Your task to perform on an android device: refresh tabs in the chrome app Image 0: 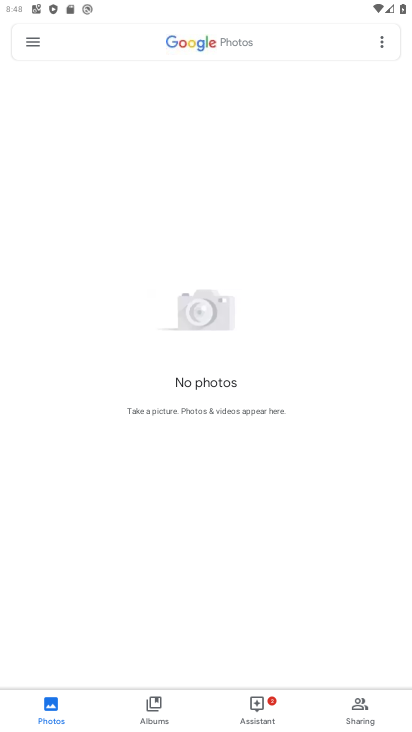
Step 0: click (194, 168)
Your task to perform on an android device: refresh tabs in the chrome app Image 1: 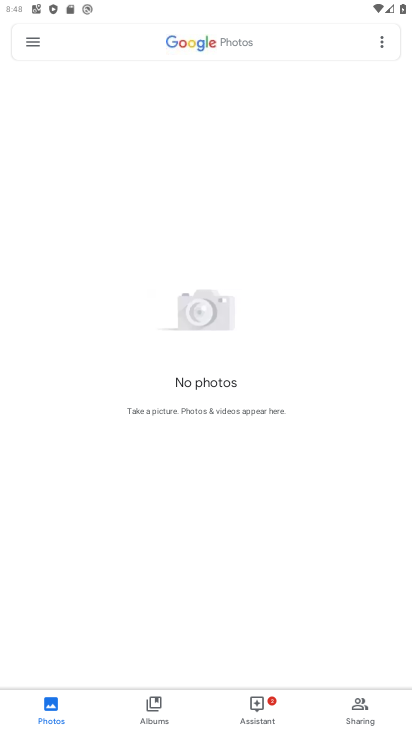
Step 1: press home button
Your task to perform on an android device: refresh tabs in the chrome app Image 2: 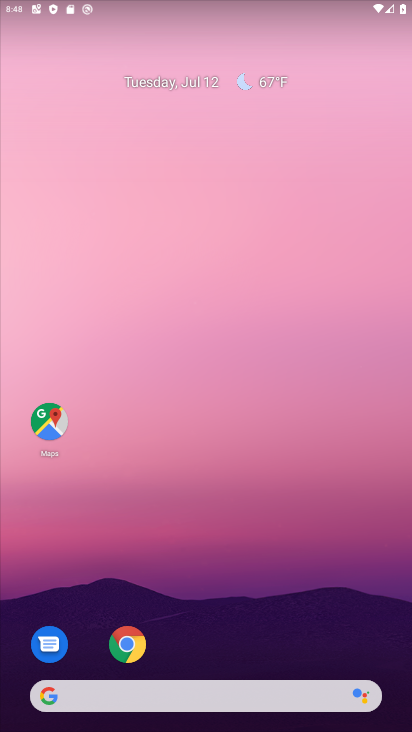
Step 2: drag from (219, 637) to (219, 151)
Your task to perform on an android device: refresh tabs in the chrome app Image 3: 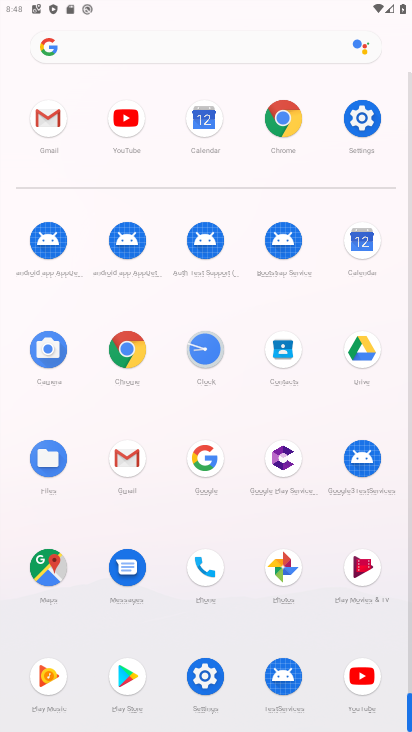
Step 3: click (129, 353)
Your task to perform on an android device: refresh tabs in the chrome app Image 4: 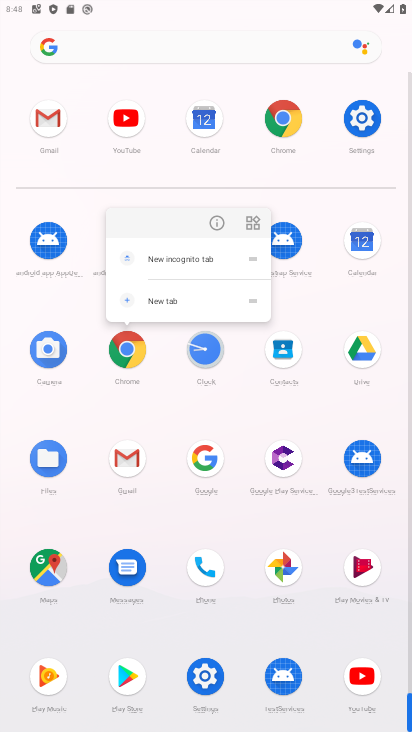
Step 4: click (217, 218)
Your task to perform on an android device: refresh tabs in the chrome app Image 5: 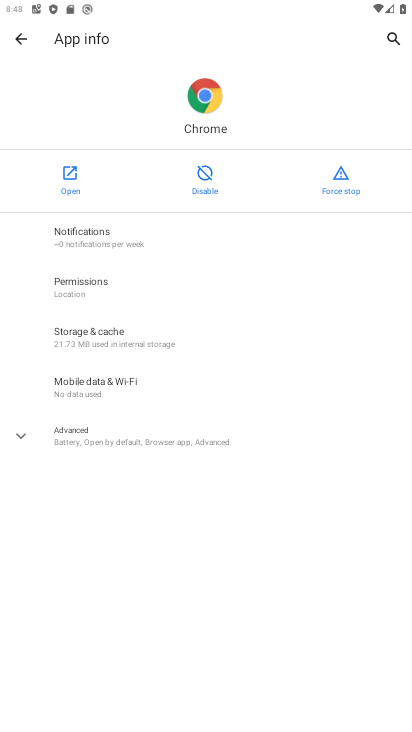
Step 5: click (62, 178)
Your task to perform on an android device: refresh tabs in the chrome app Image 6: 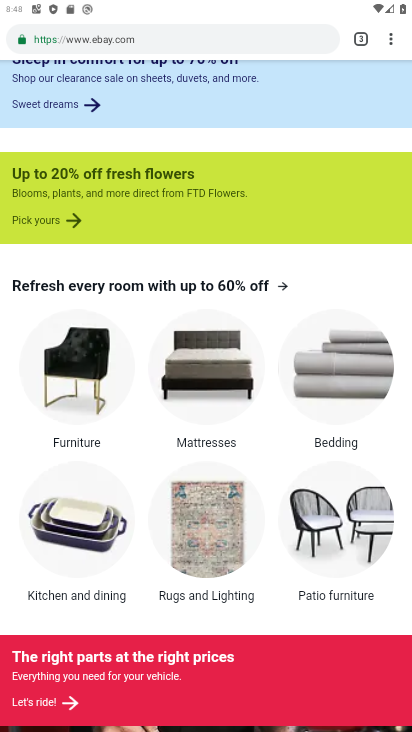
Step 6: drag from (188, 601) to (295, 96)
Your task to perform on an android device: refresh tabs in the chrome app Image 7: 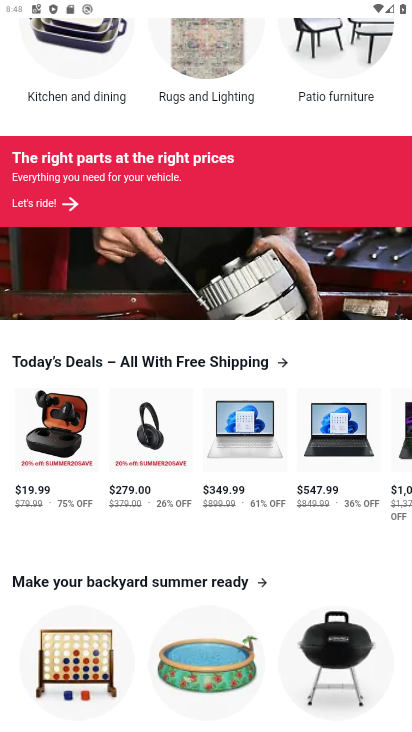
Step 7: drag from (229, 500) to (285, 129)
Your task to perform on an android device: refresh tabs in the chrome app Image 8: 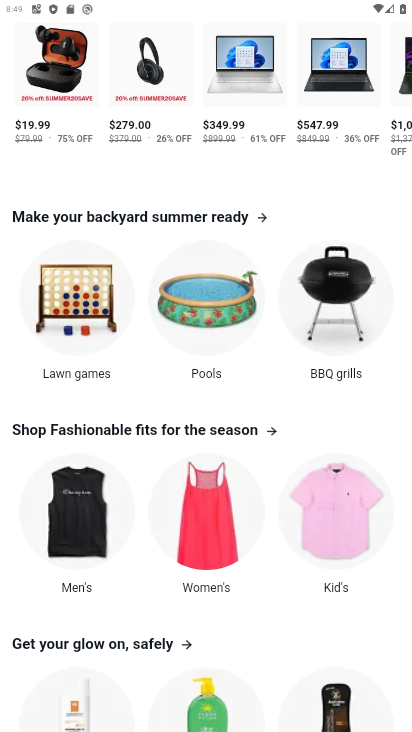
Step 8: drag from (233, 184) to (387, 533)
Your task to perform on an android device: refresh tabs in the chrome app Image 9: 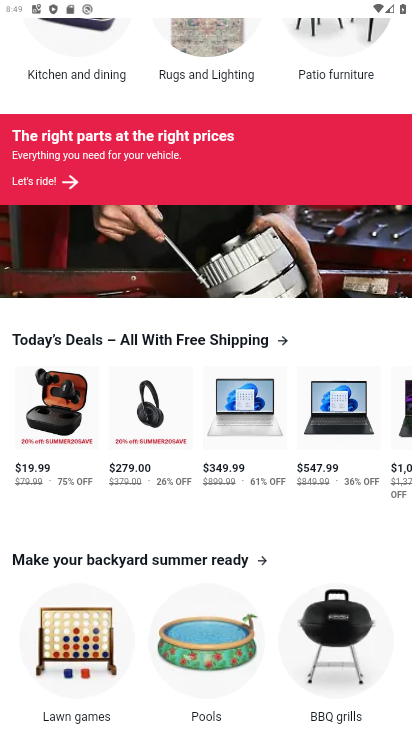
Step 9: drag from (343, 69) to (412, 35)
Your task to perform on an android device: refresh tabs in the chrome app Image 10: 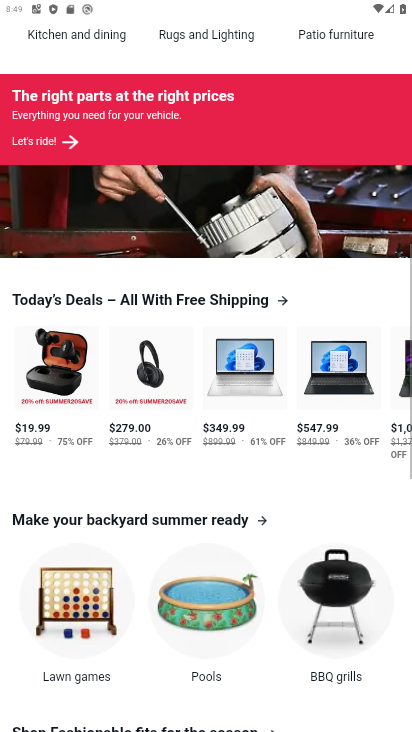
Step 10: click (387, 40)
Your task to perform on an android device: refresh tabs in the chrome app Image 11: 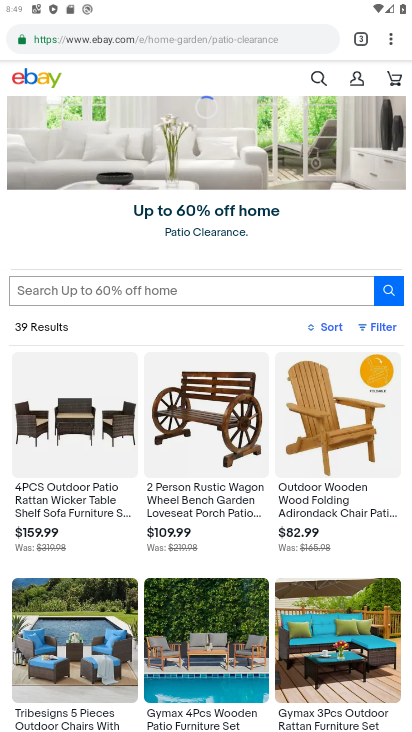
Step 11: click (397, 39)
Your task to perform on an android device: refresh tabs in the chrome app Image 12: 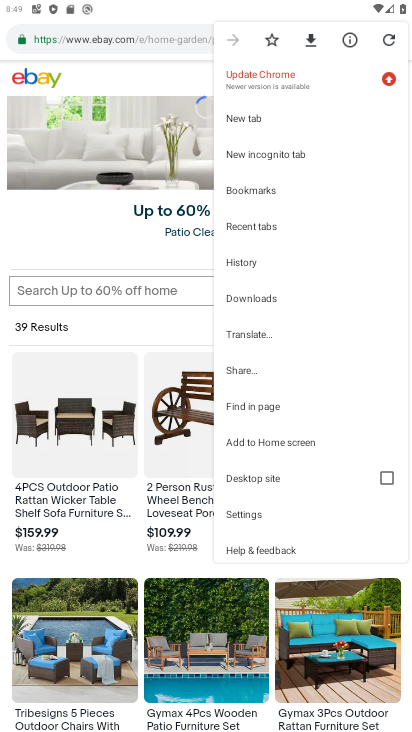
Step 12: click (382, 34)
Your task to perform on an android device: refresh tabs in the chrome app Image 13: 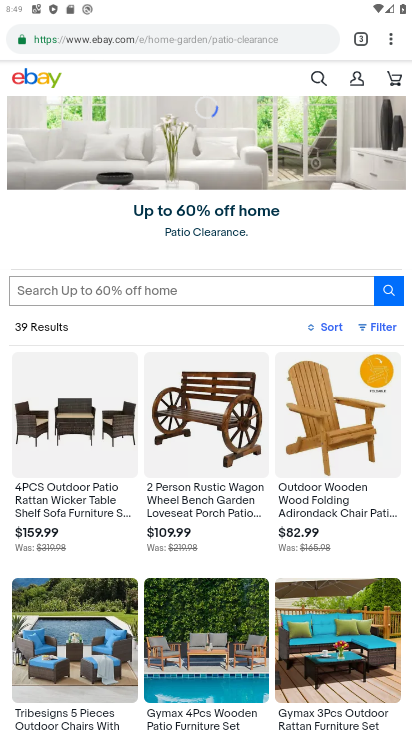
Step 13: task complete